Your task to perform on an android device: turn off picture-in-picture Image 0: 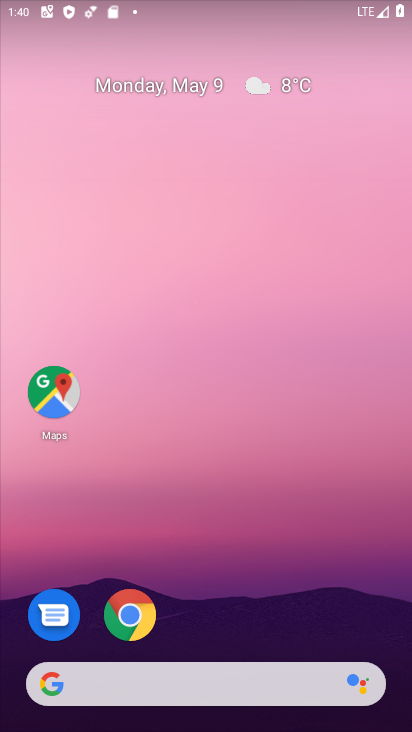
Step 0: drag from (378, 623) to (298, 9)
Your task to perform on an android device: turn off picture-in-picture Image 1: 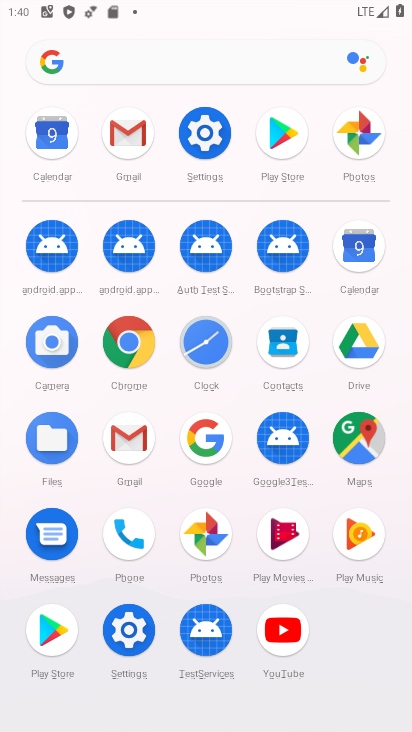
Step 1: click (129, 629)
Your task to perform on an android device: turn off picture-in-picture Image 2: 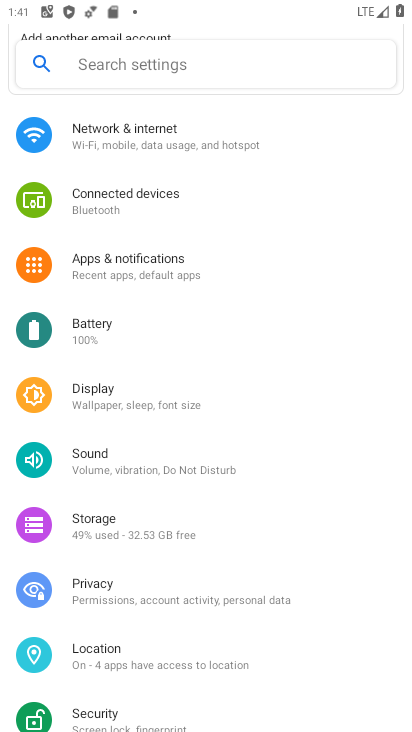
Step 2: click (131, 606)
Your task to perform on an android device: turn off picture-in-picture Image 3: 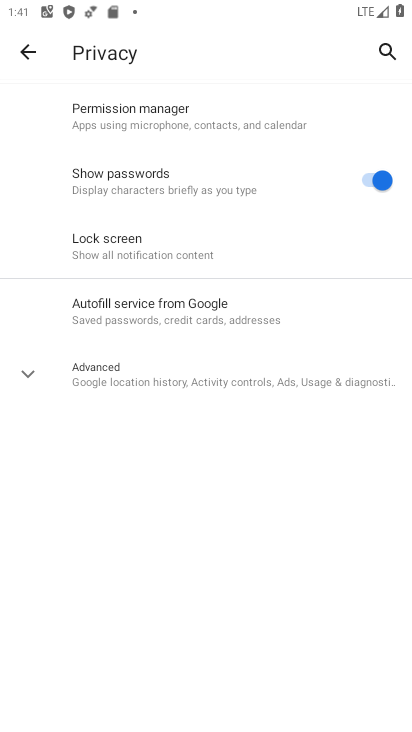
Step 3: press back button
Your task to perform on an android device: turn off picture-in-picture Image 4: 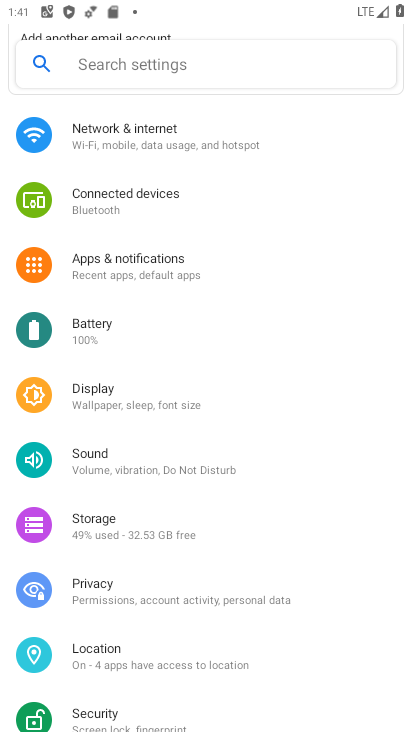
Step 4: click (128, 258)
Your task to perform on an android device: turn off picture-in-picture Image 5: 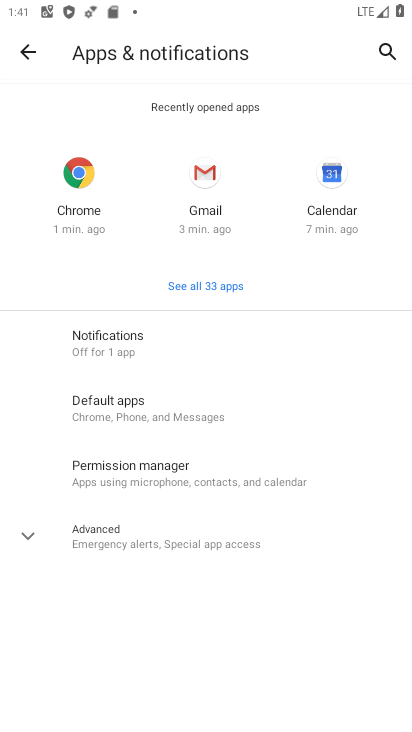
Step 5: click (34, 538)
Your task to perform on an android device: turn off picture-in-picture Image 6: 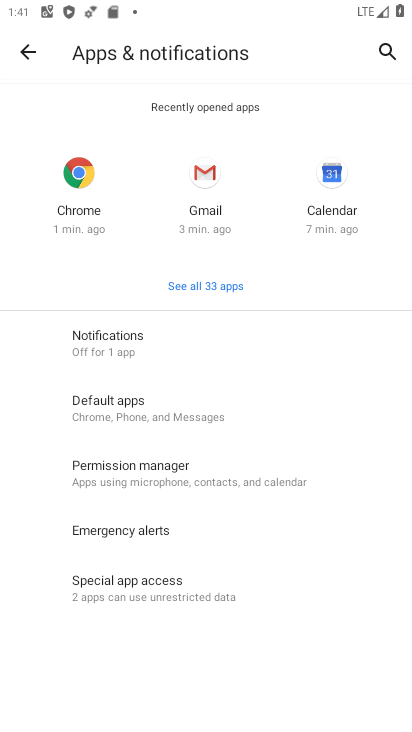
Step 6: click (112, 583)
Your task to perform on an android device: turn off picture-in-picture Image 7: 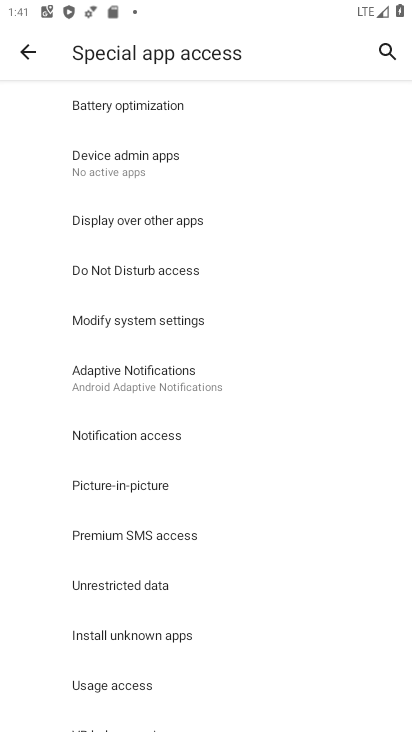
Step 7: click (95, 481)
Your task to perform on an android device: turn off picture-in-picture Image 8: 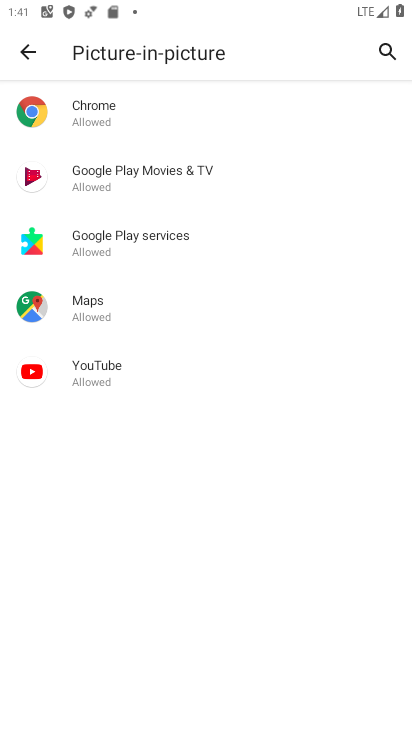
Step 8: click (84, 356)
Your task to perform on an android device: turn off picture-in-picture Image 9: 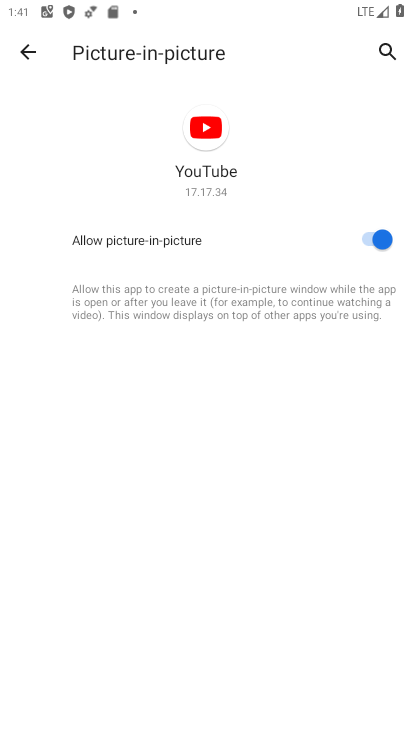
Step 9: click (365, 236)
Your task to perform on an android device: turn off picture-in-picture Image 10: 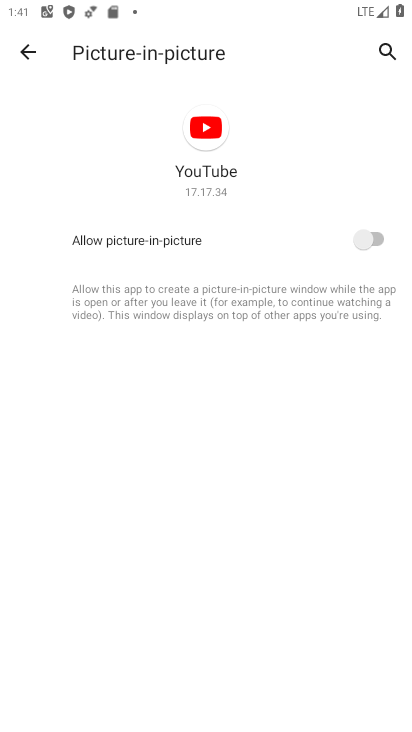
Step 10: task complete